Your task to perform on an android device: turn off notifications in google photos Image 0: 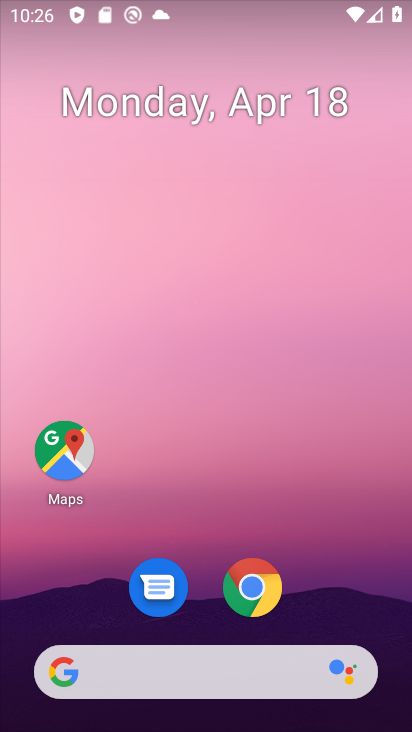
Step 0: drag from (378, 583) to (405, 83)
Your task to perform on an android device: turn off notifications in google photos Image 1: 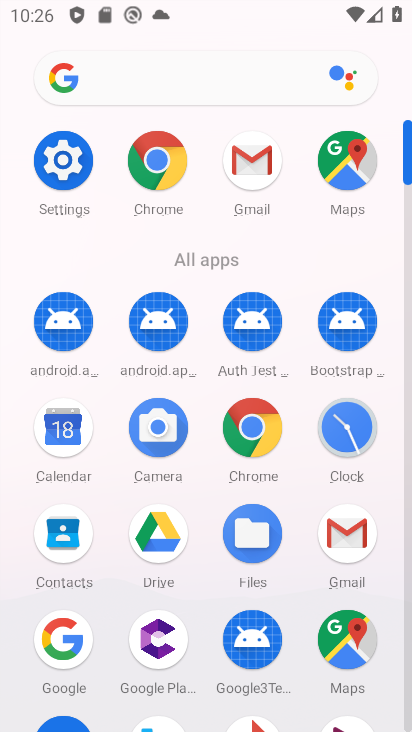
Step 1: drag from (198, 596) to (205, 195)
Your task to perform on an android device: turn off notifications in google photos Image 2: 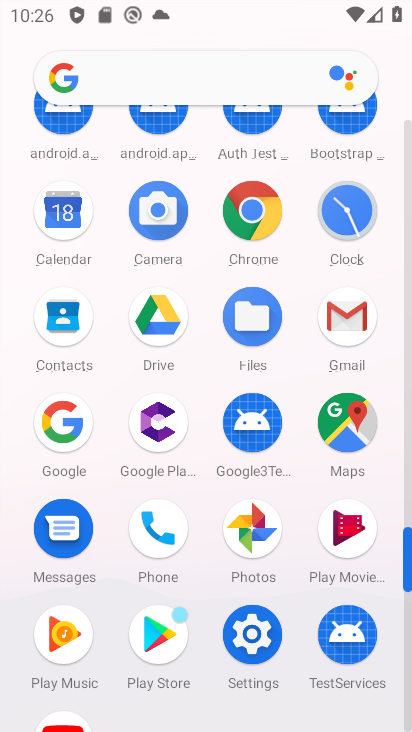
Step 2: click (266, 532)
Your task to perform on an android device: turn off notifications in google photos Image 3: 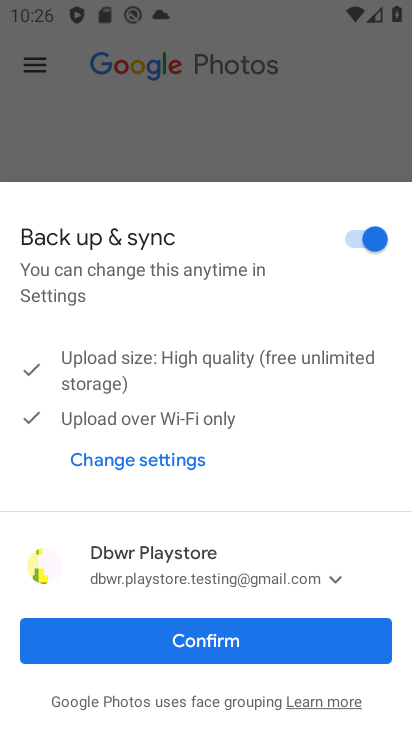
Step 3: click (227, 643)
Your task to perform on an android device: turn off notifications in google photos Image 4: 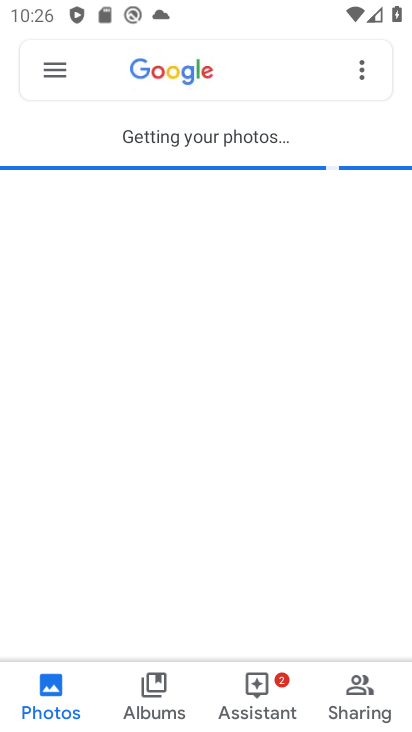
Step 4: click (49, 74)
Your task to perform on an android device: turn off notifications in google photos Image 5: 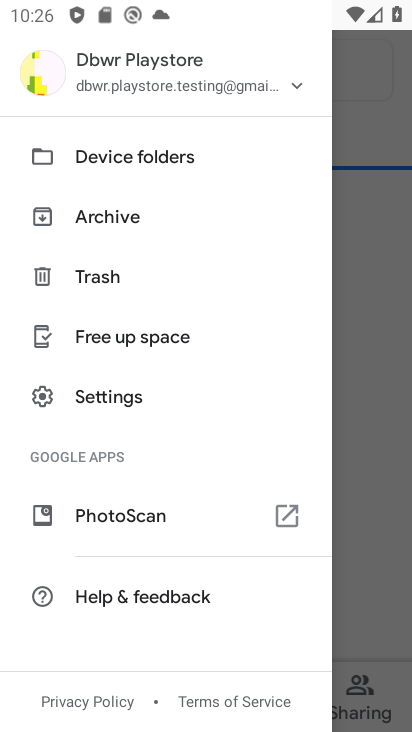
Step 5: click (100, 412)
Your task to perform on an android device: turn off notifications in google photos Image 6: 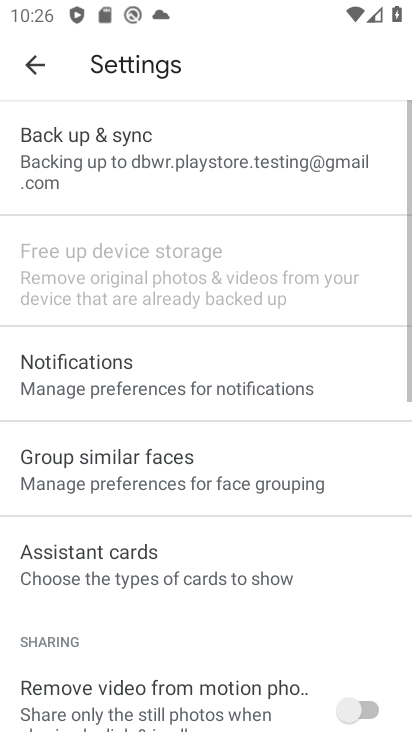
Step 6: click (154, 397)
Your task to perform on an android device: turn off notifications in google photos Image 7: 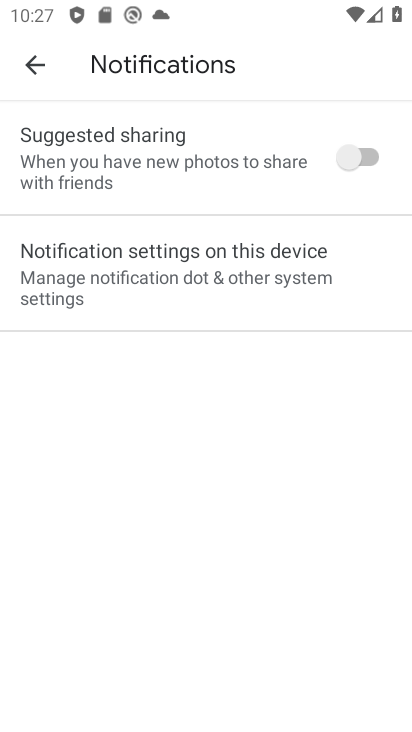
Step 7: click (261, 279)
Your task to perform on an android device: turn off notifications in google photos Image 8: 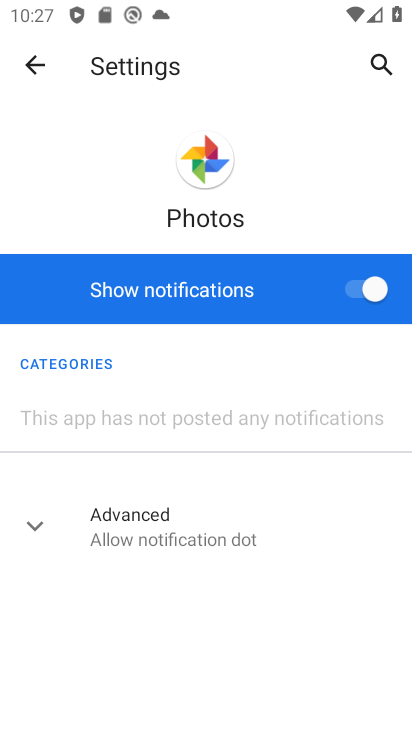
Step 8: click (357, 289)
Your task to perform on an android device: turn off notifications in google photos Image 9: 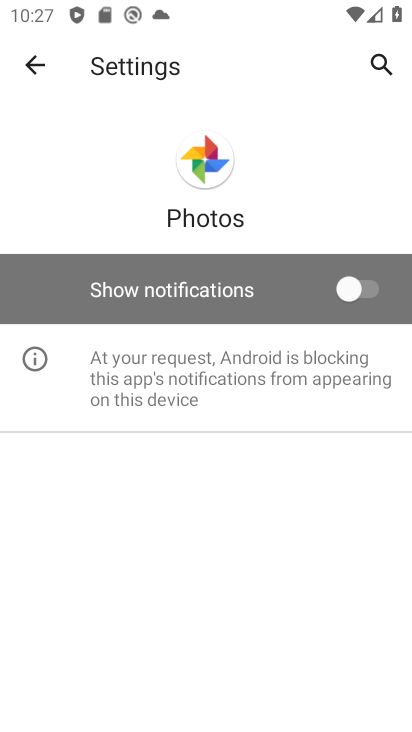
Step 9: task complete